Your task to perform on an android device: Go to CNN.com Image 0: 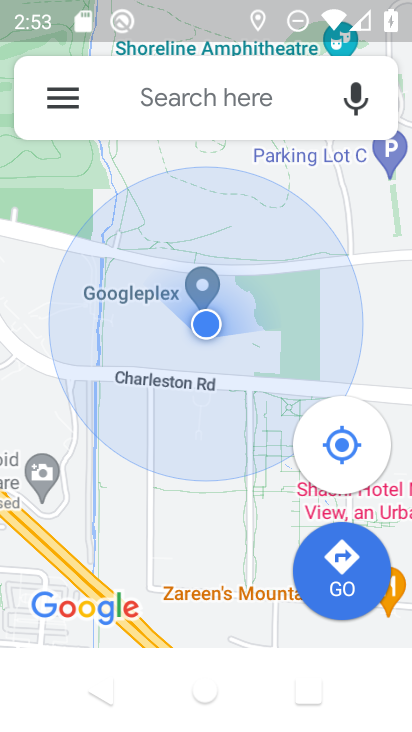
Step 0: press home button
Your task to perform on an android device: Go to CNN.com Image 1: 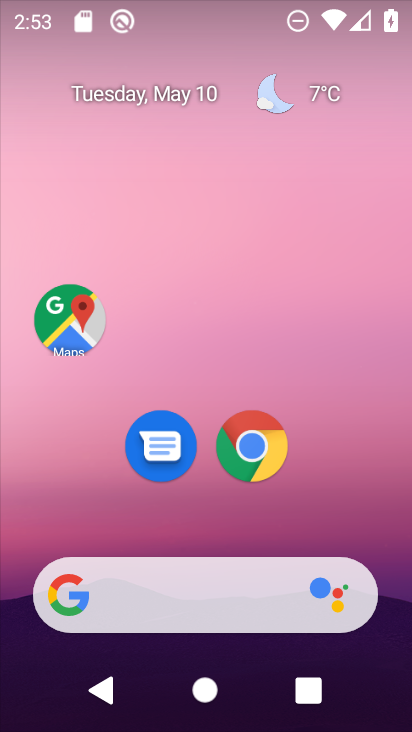
Step 1: click (255, 446)
Your task to perform on an android device: Go to CNN.com Image 2: 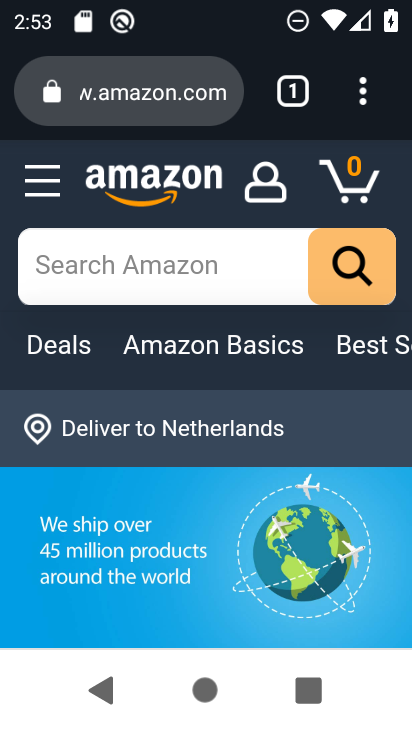
Step 2: click (286, 85)
Your task to perform on an android device: Go to CNN.com Image 3: 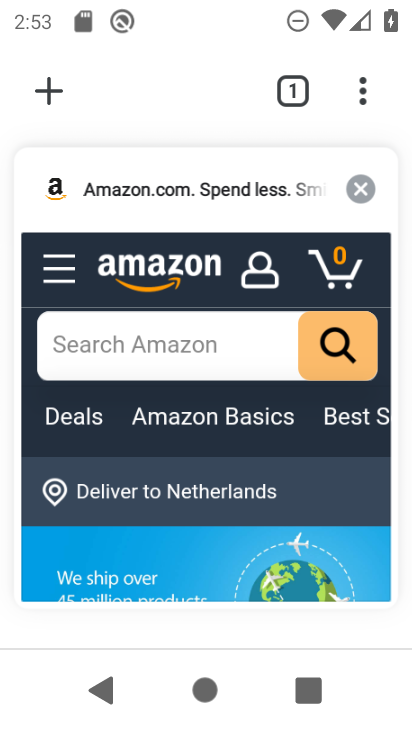
Step 3: click (43, 88)
Your task to perform on an android device: Go to CNN.com Image 4: 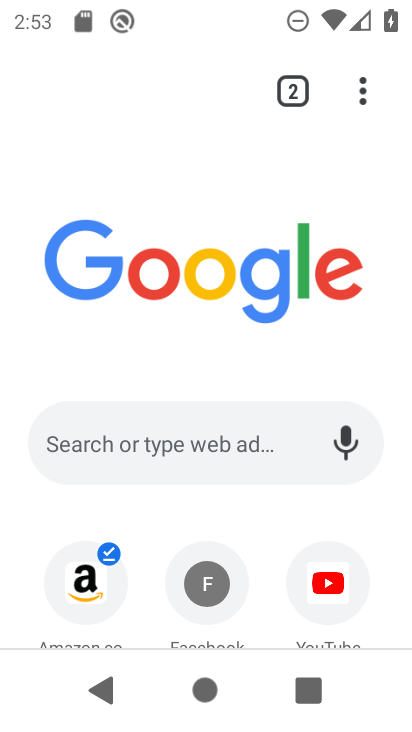
Step 4: click (201, 431)
Your task to perform on an android device: Go to CNN.com Image 5: 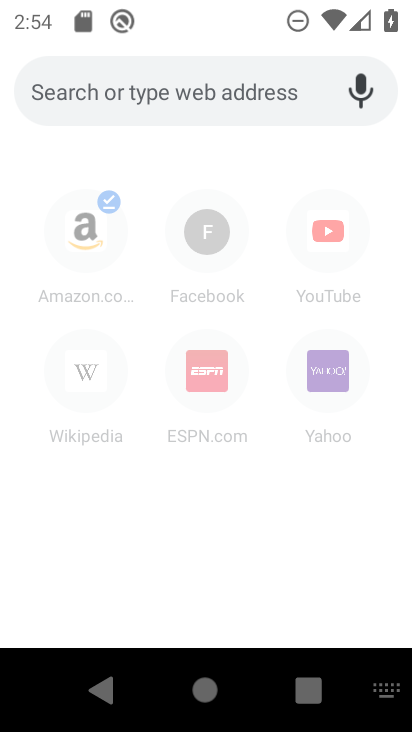
Step 5: type "CNN.com"
Your task to perform on an android device: Go to CNN.com Image 6: 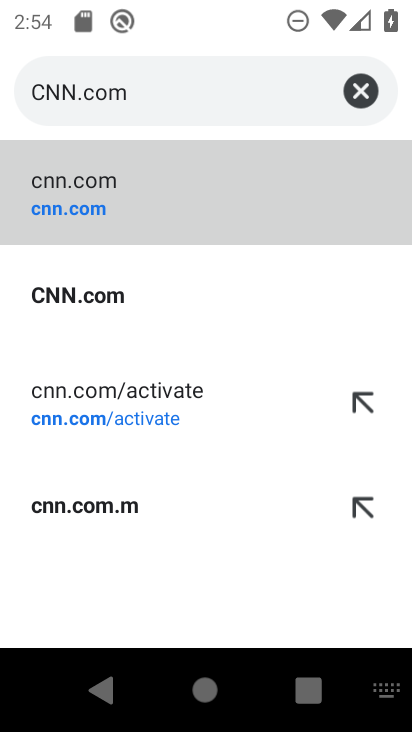
Step 6: click (105, 226)
Your task to perform on an android device: Go to CNN.com Image 7: 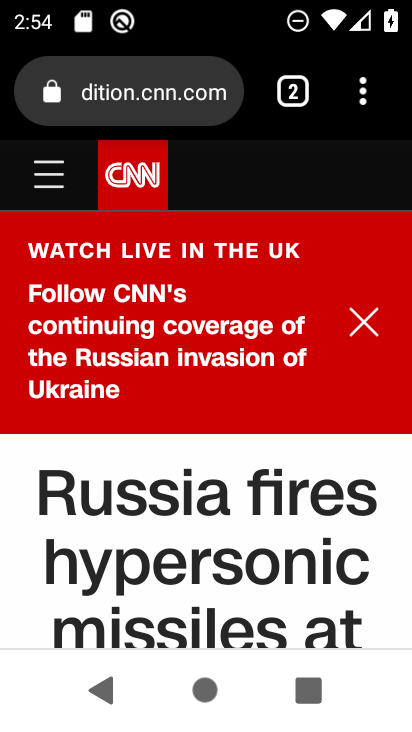
Step 7: task complete